Your task to perform on an android device: Open Google Image 0: 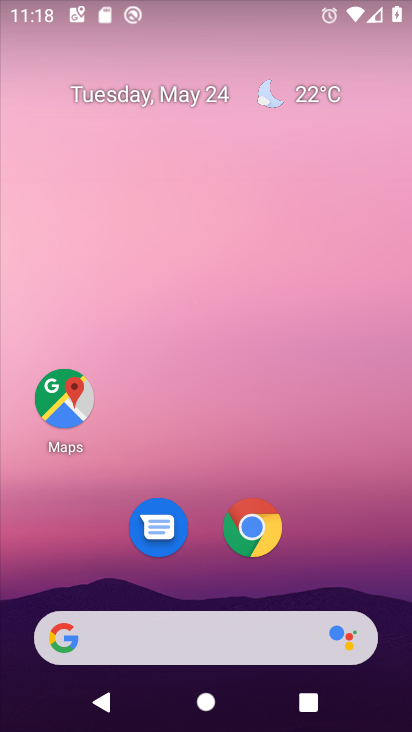
Step 0: drag from (217, 634) to (323, 175)
Your task to perform on an android device: Open Google Image 1: 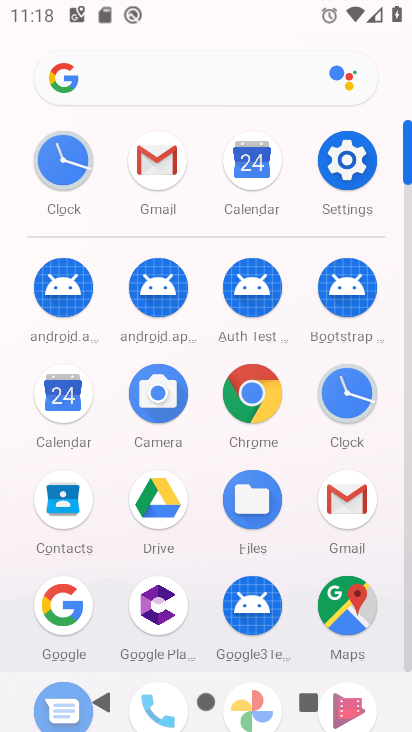
Step 1: click (75, 609)
Your task to perform on an android device: Open Google Image 2: 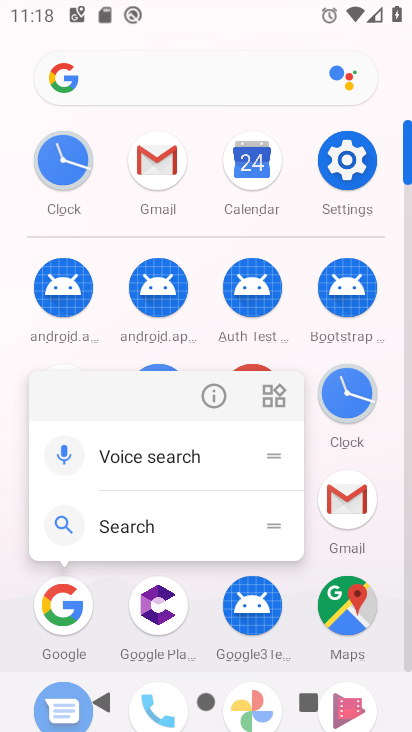
Step 2: click (70, 603)
Your task to perform on an android device: Open Google Image 3: 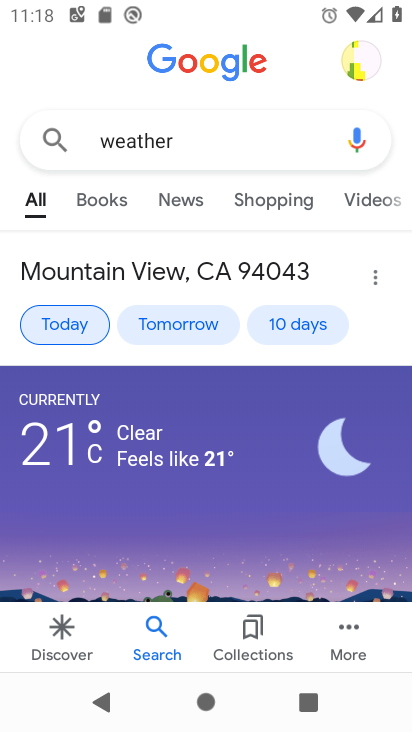
Step 3: click (58, 644)
Your task to perform on an android device: Open Google Image 4: 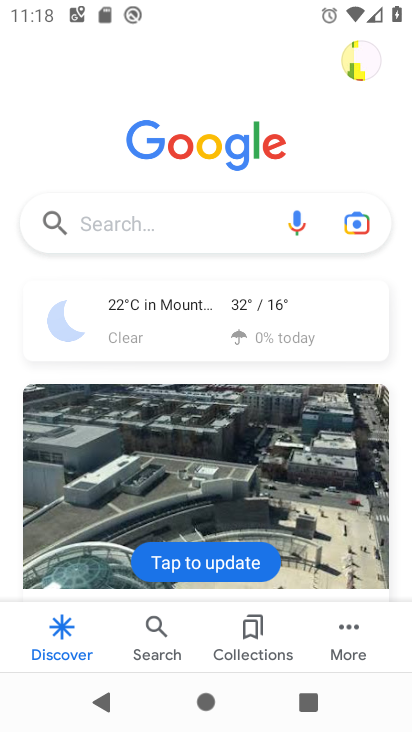
Step 4: task complete